Your task to perform on an android device: What's the weather going to be tomorrow? Image 0: 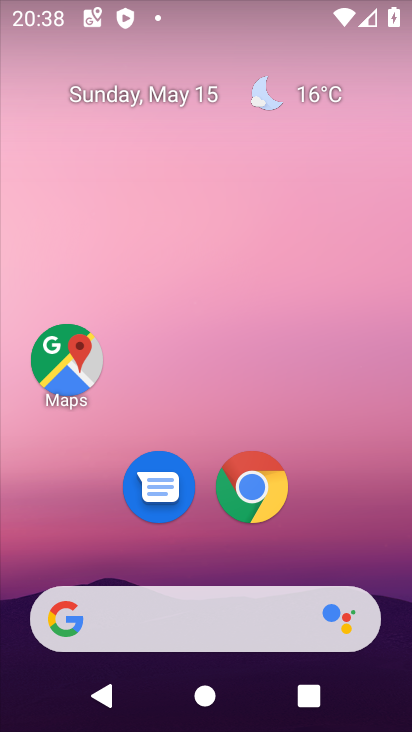
Step 0: drag from (393, 653) to (364, 216)
Your task to perform on an android device: What's the weather going to be tomorrow? Image 1: 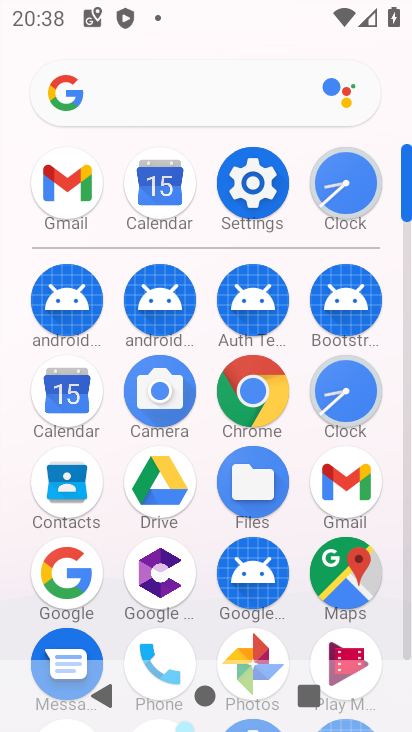
Step 1: click (69, 554)
Your task to perform on an android device: What's the weather going to be tomorrow? Image 2: 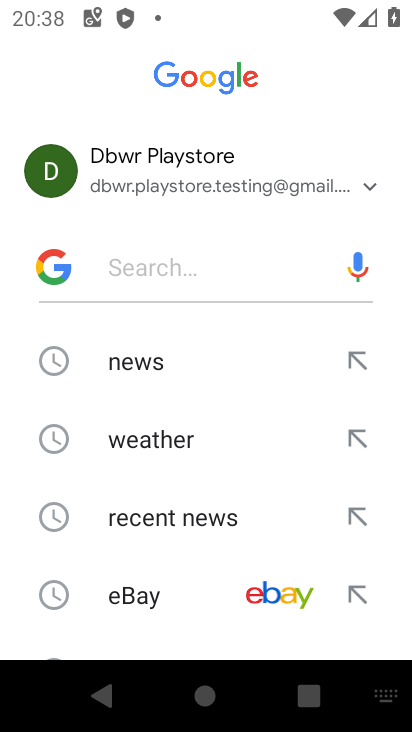
Step 2: click (130, 430)
Your task to perform on an android device: What's the weather going to be tomorrow? Image 3: 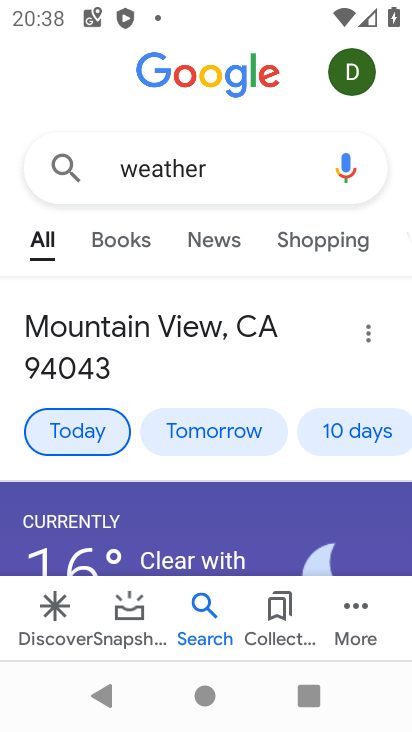
Step 3: click (198, 429)
Your task to perform on an android device: What's the weather going to be tomorrow? Image 4: 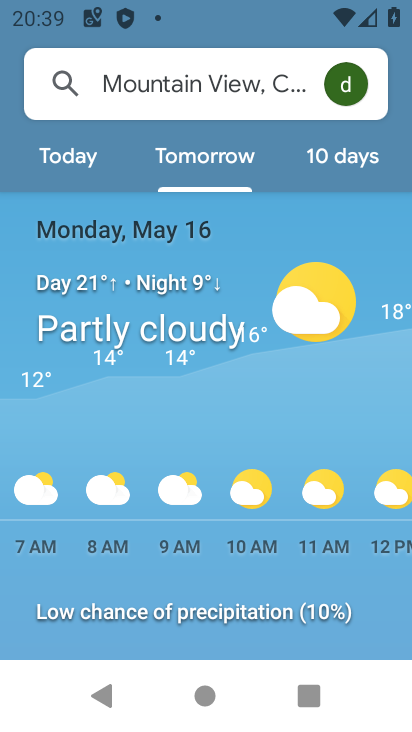
Step 4: task complete